Your task to perform on an android device: turn on airplane mode Image 0: 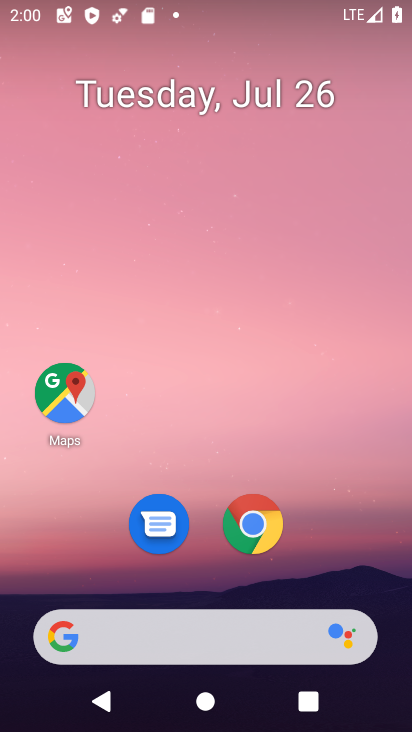
Step 0: drag from (323, 555) to (362, 10)
Your task to perform on an android device: turn on airplane mode Image 1: 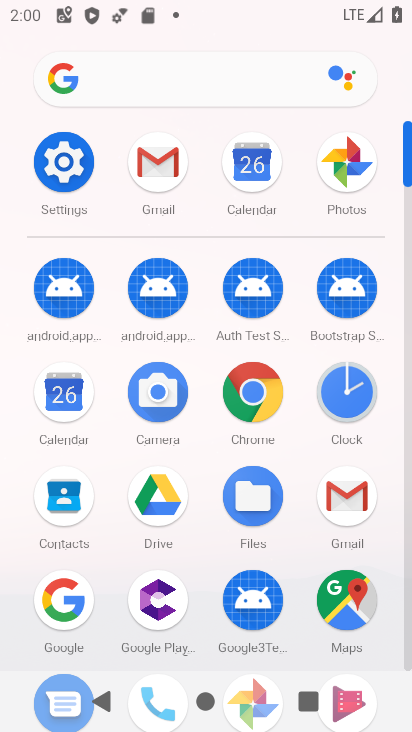
Step 1: click (78, 170)
Your task to perform on an android device: turn on airplane mode Image 2: 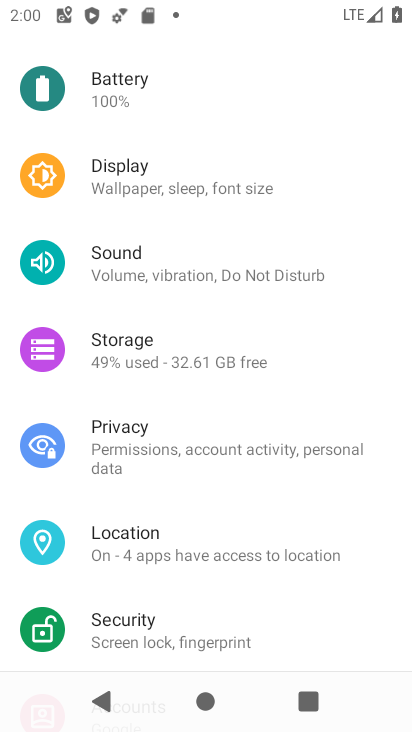
Step 2: drag from (223, 157) to (190, 552)
Your task to perform on an android device: turn on airplane mode Image 3: 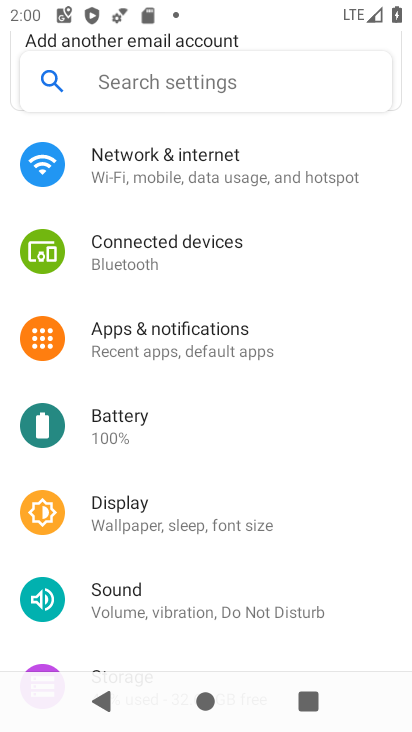
Step 3: drag from (240, 234) to (271, 563)
Your task to perform on an android device: turn on airplane mode Image 4: 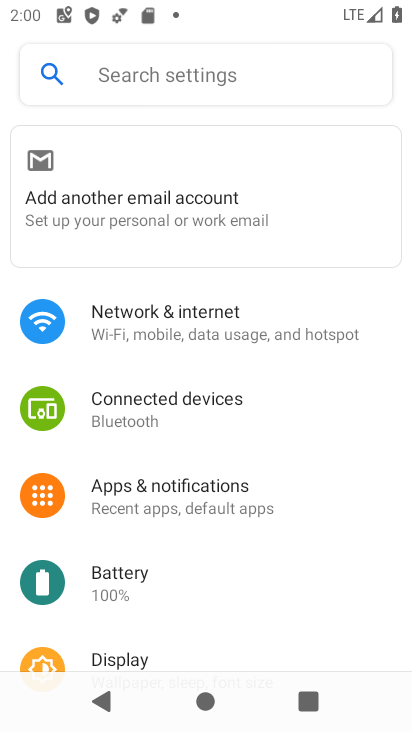
Step 4: click (242, 326)
Your task to perform on an android device: turn on airplane mode Image 5: 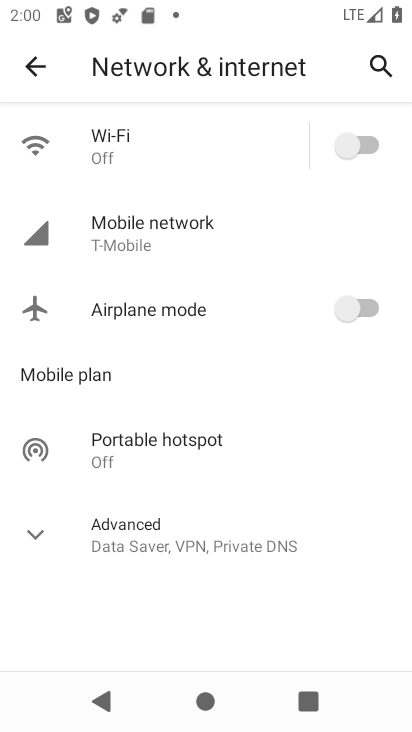
Step 5: click (360, 302)
Your task to perform on an android device: turn on airplane mode Image 6: 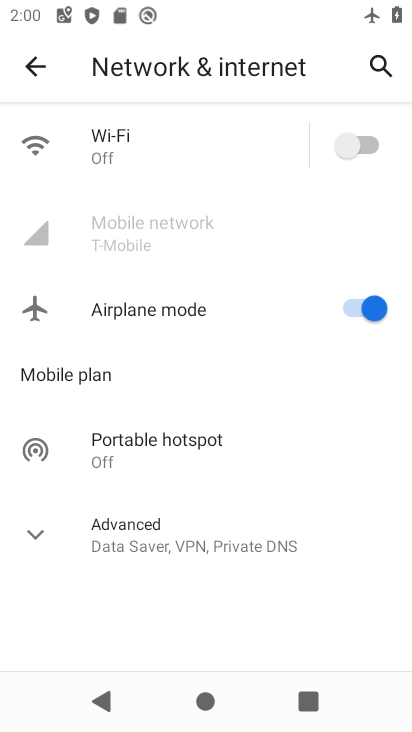
Step 6: task complete